Your task to perform on an android device: Empty the shopping cart on walmart. Image 0: 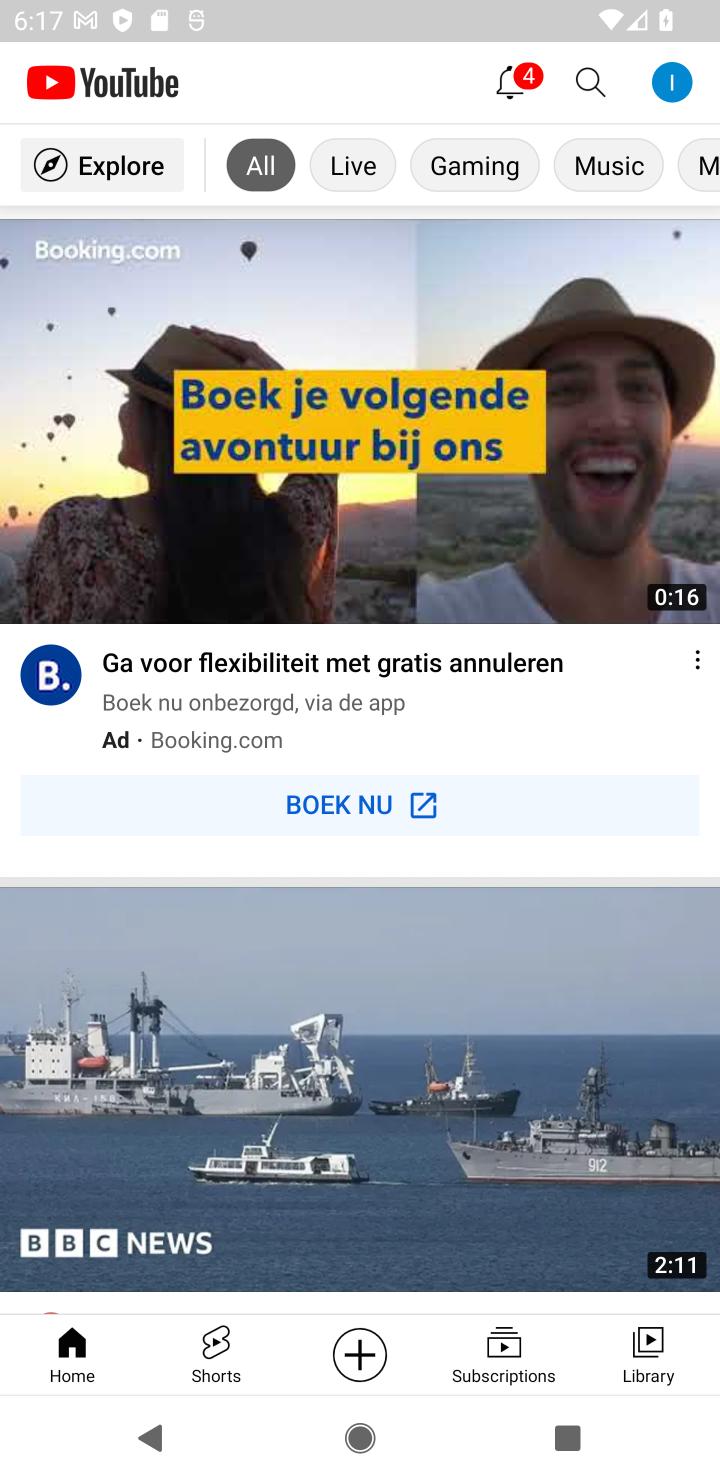
Step 0: press home button
Your task to perform on an android device: Empty the shopping cart on walmart. Image 1: 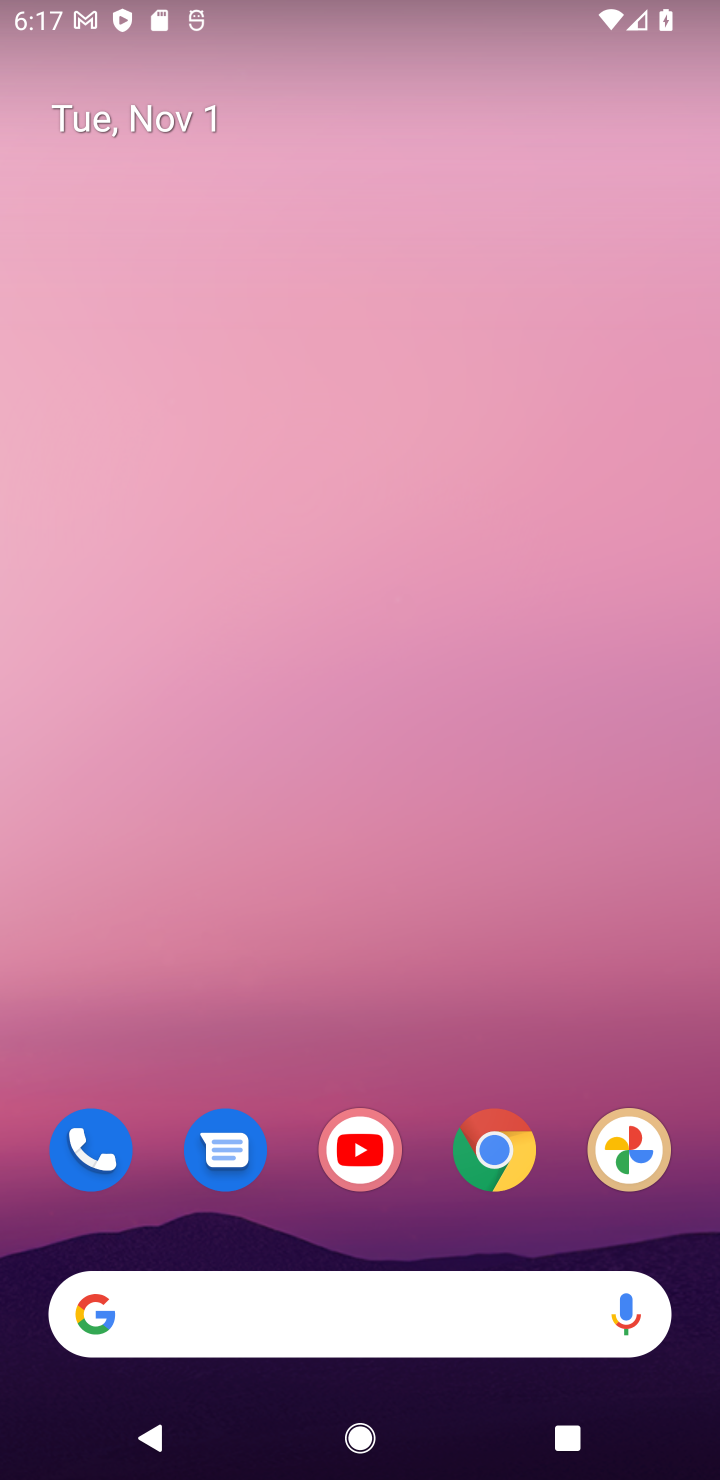
Step 1: click (483, 1143)
Your task to perform on an android device: Empty the shopping cart on walmart. Image 2: 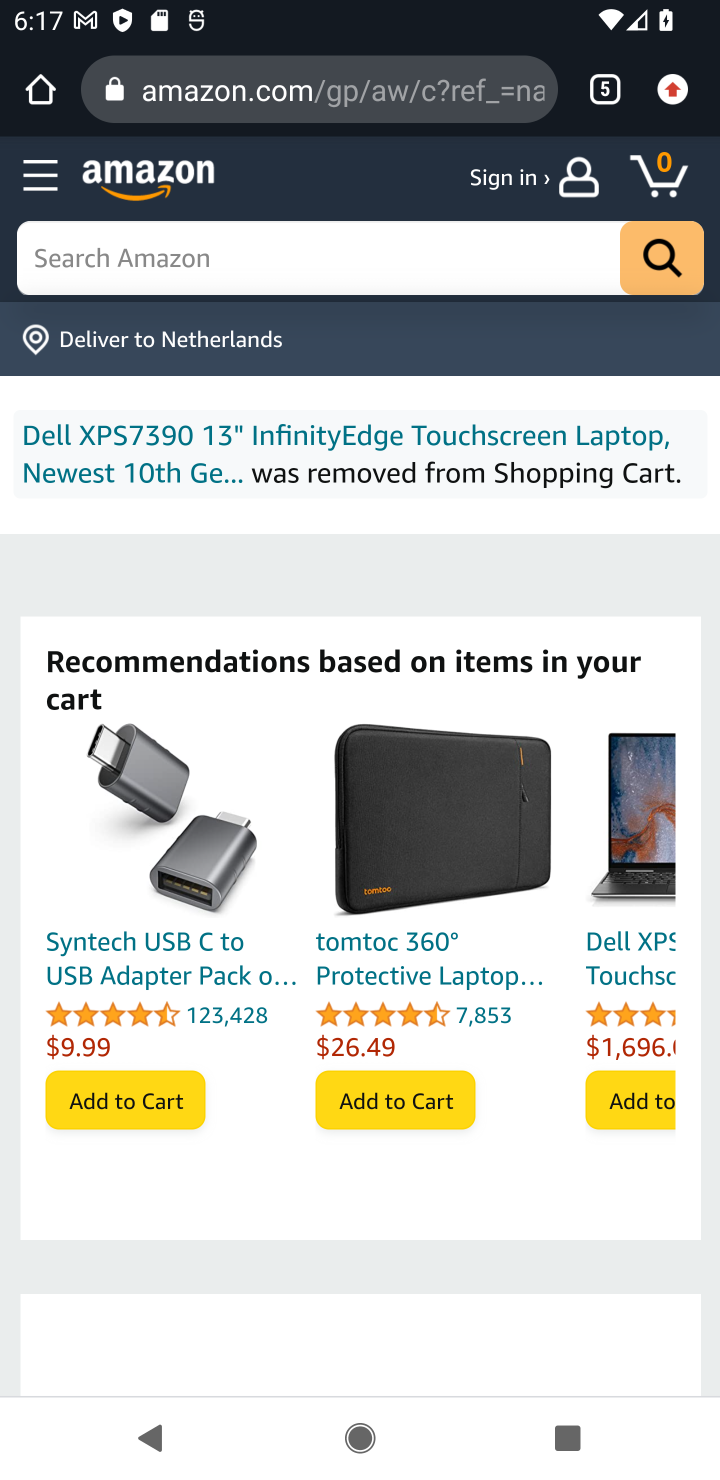
Step 2: click (613, 95)
Your task to perform on an android device: Empty the shopping cart on walmart. Image 3: 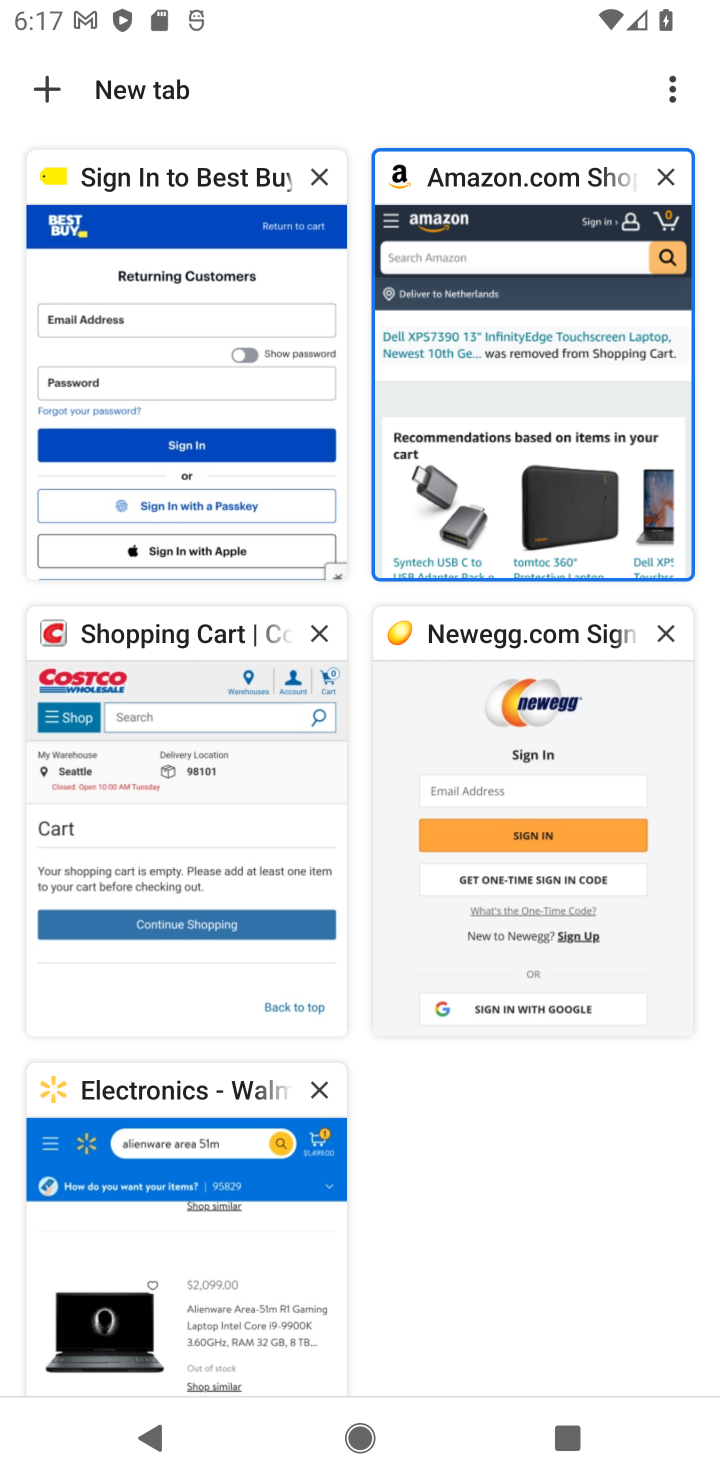
Step 3: click (115, 1213)
Your task to perform on an android device: Empty the shopping cart on walmart. Image 4: 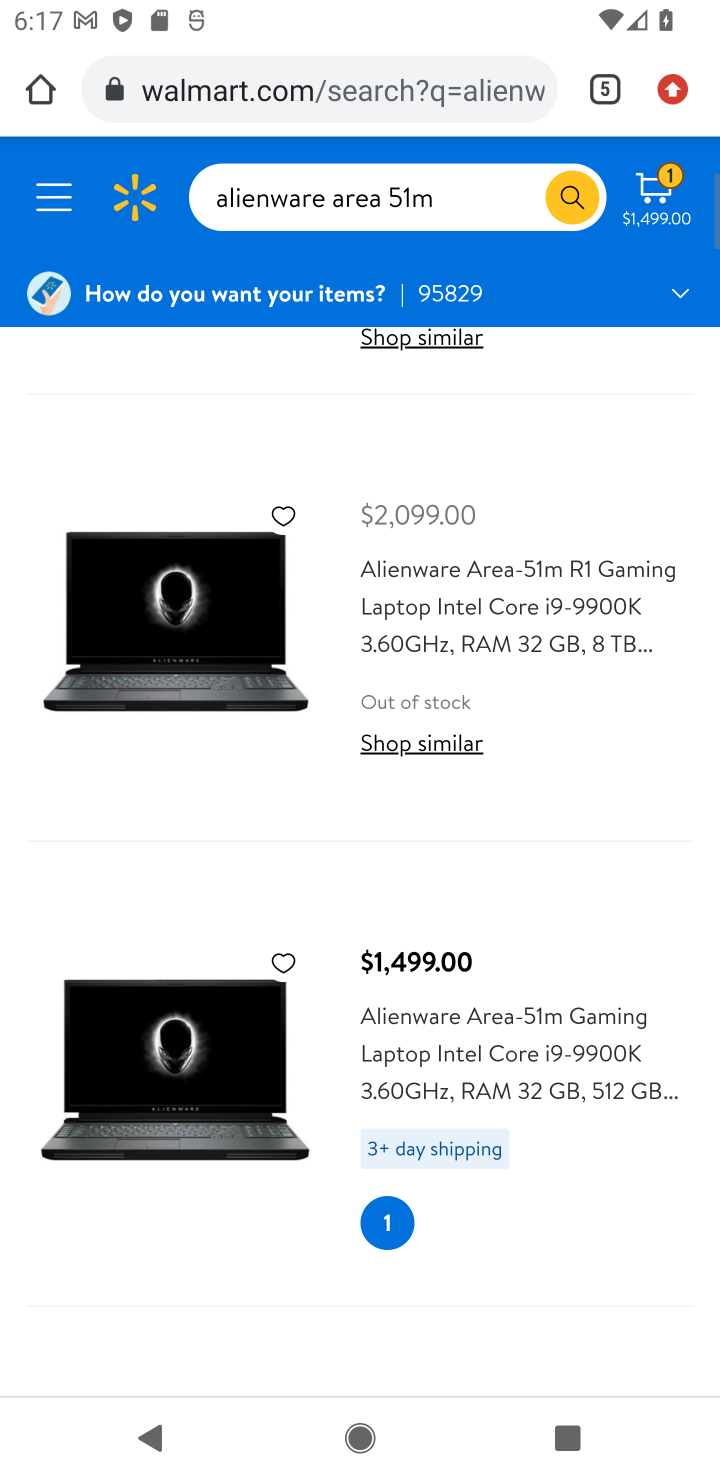
Step 4: click (647, 182)
Your task to perform on an android device: Empty the shopping cart on walmart. Image 5: 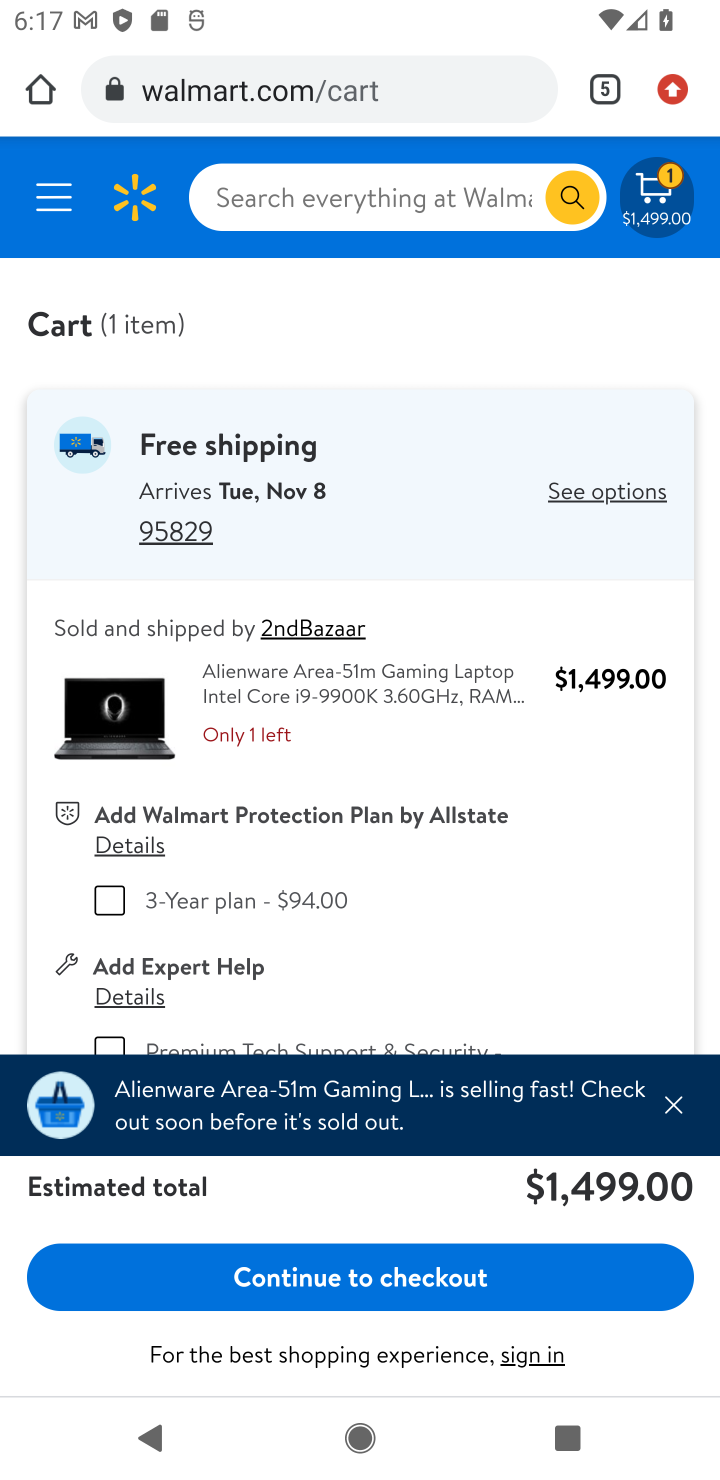
Step 5: drag from (325, 961) to (421, 497)
Your task to perform on an android device: Empty the shopping cart on walmart. Image 6: 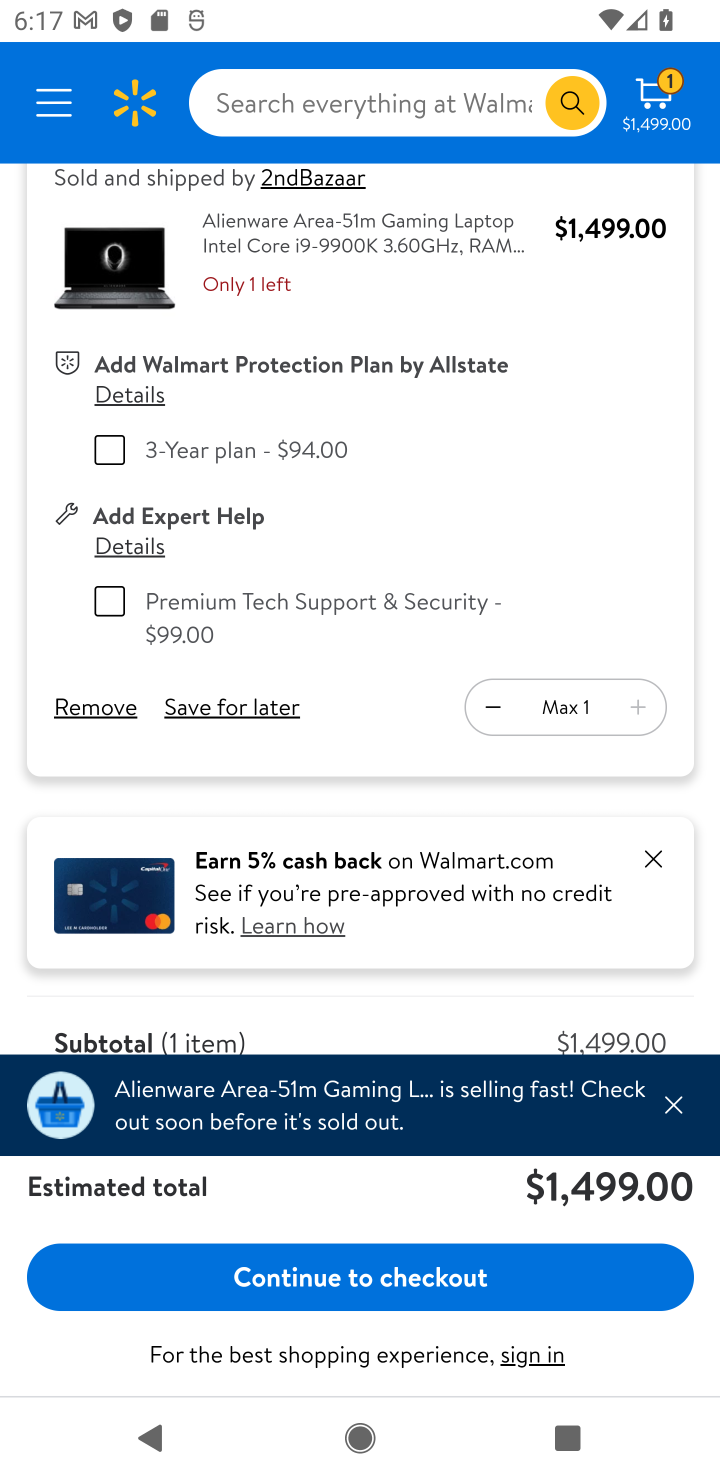
Step 6: click (91, 708)
Your task to perform on an android device: Empty the shopping cart on walmart. Image 7: 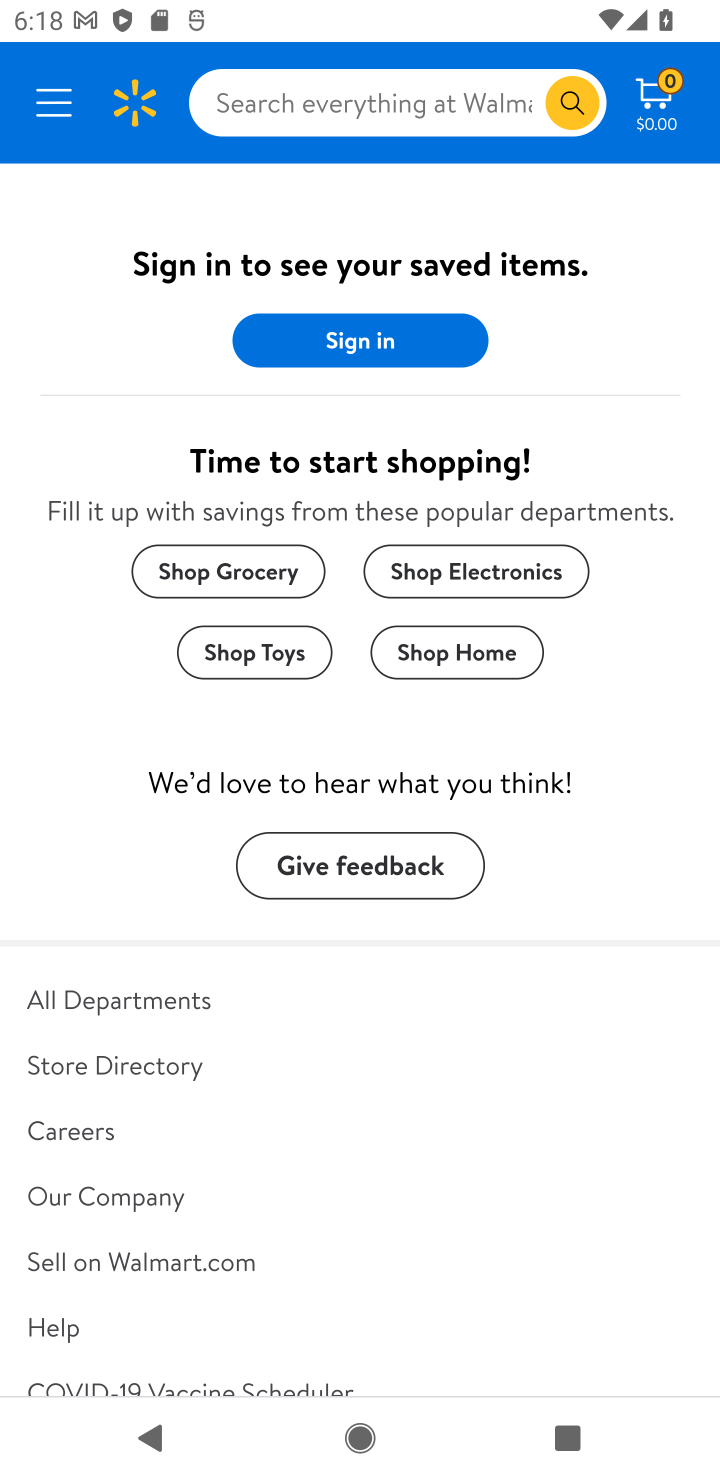
Step 7: task complete